Your task to perform on an android device: Open Google Chrome and click the shortcut for Amazon.com Image 0: 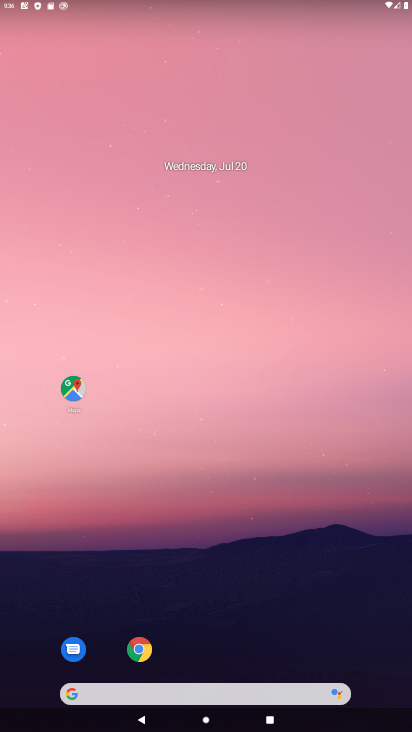
Step 0: click (129, 648)
Your task to perform on an android device: Open Google Chrome and click the shortcut for Amazon.com Image 1: 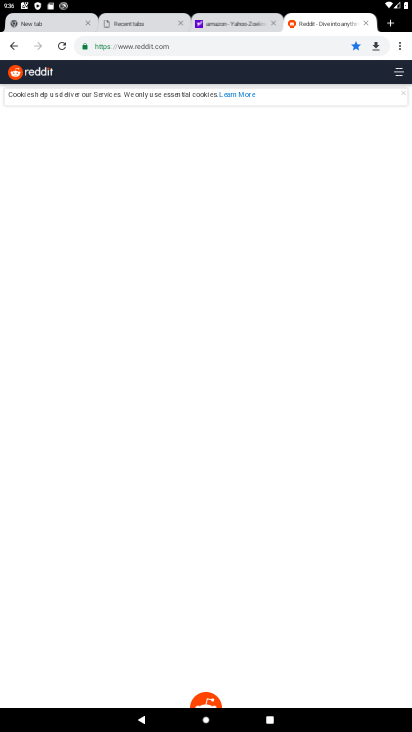
Step 1: click (391, 25)
Your task to perform on an android device: Open Google Chrome and click the shortcut for Amazon.com Image 2: 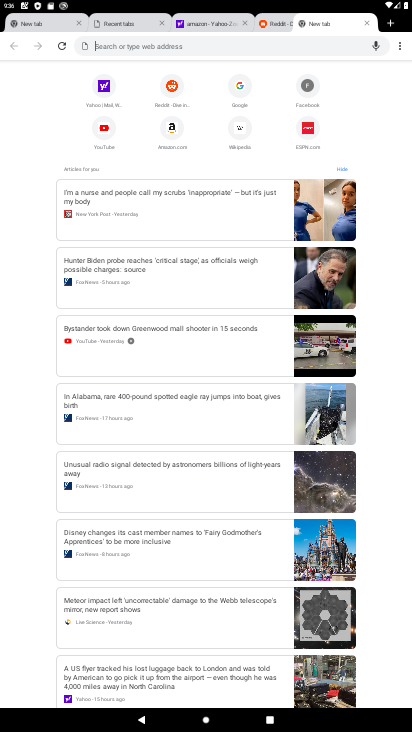
Step 2: click (176, 135)
Your task to perform on an android device: Open Google Chrome and click the shortcut for Amazon.com Image 3: 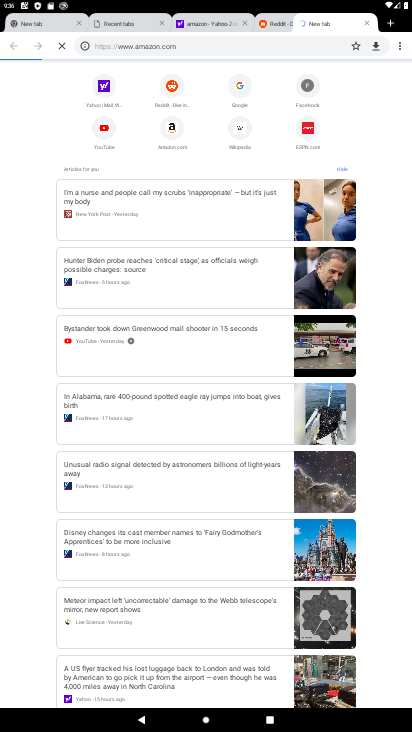
Step 3: task complete